Your task to perform on an android device: turn off picture-in-picture Image 0: 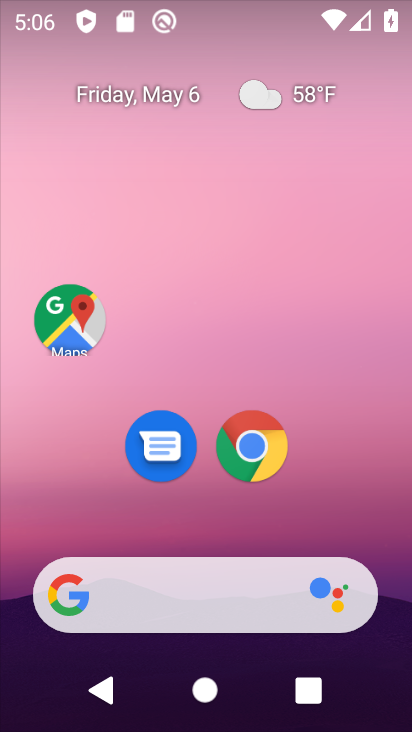
Step 0: click (292, 0)
Your task to perform on an android device: turn off picture-in-picture Image 1: 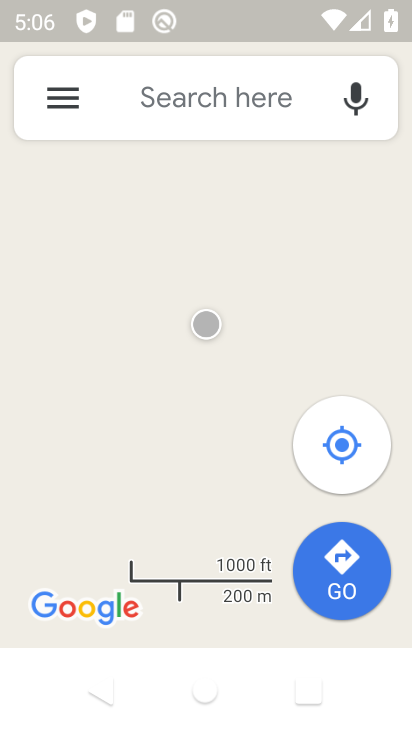
Step 1: press home button
Your task to perform on an android device: turn off picture-in-picture Image 2: 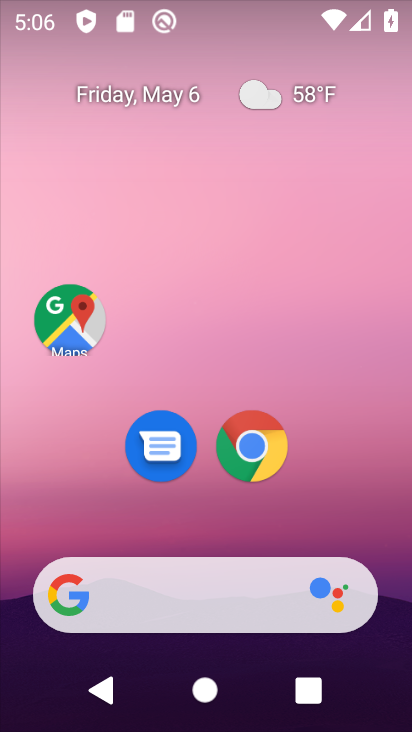
Step 2: drag from (332, 502) to (257, 7)
Your task to perform on an android device: turn off picture-in-picture Image 3: 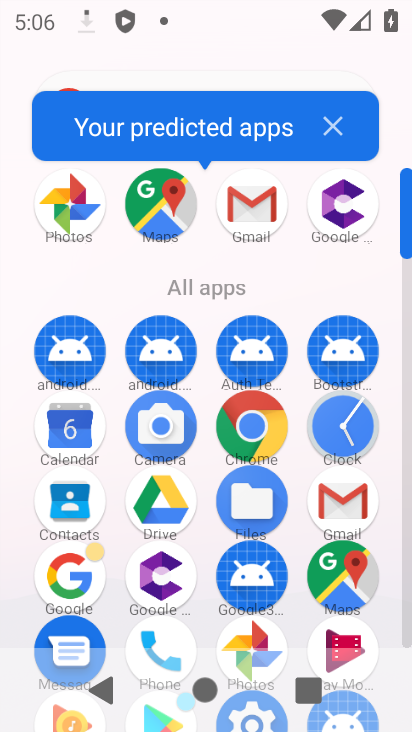
Step 3: drag from (198, 562) to (189, 275)
Your task to perform on an android device: turn off picture-in-picture Image 4: 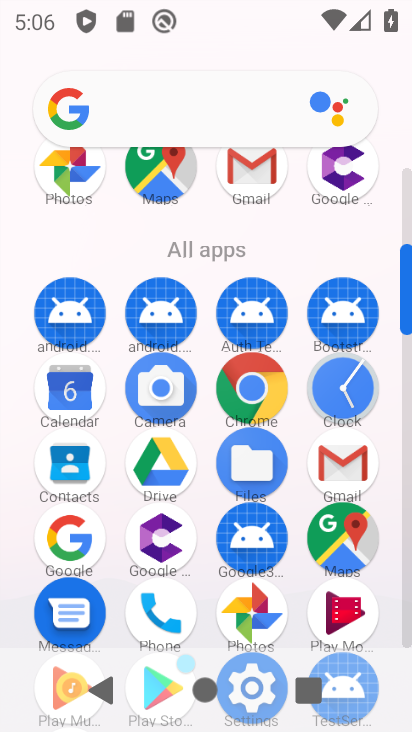
Step 4: drag from (208, 546) to (211, 219)
Your task to perform on an android device: turn off picture-in-picture Image 5: 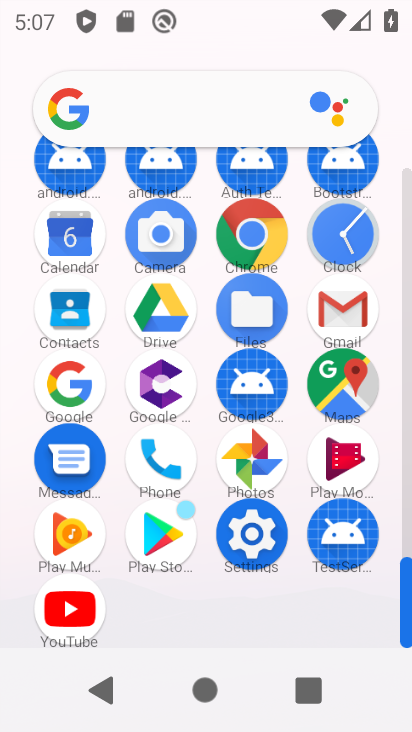
Step 5: click (262, 527)
Your task to perform on an android device: turn off picture-in-picture Image 6: 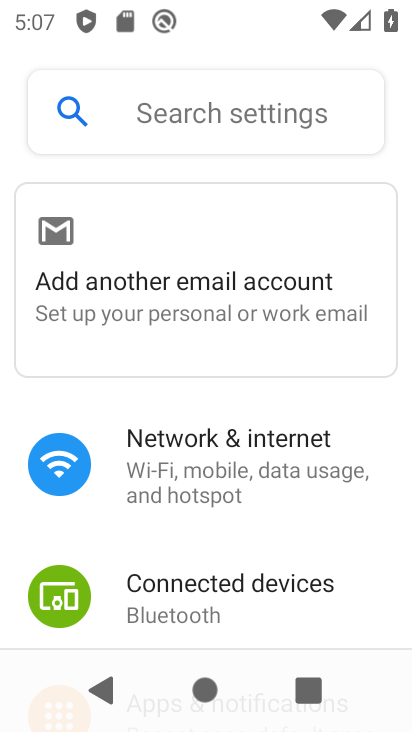
Step 6: drag from (239, 533) to (118, 44)
Your task to perform on an android device: turn off picture-in-picture Image 7: 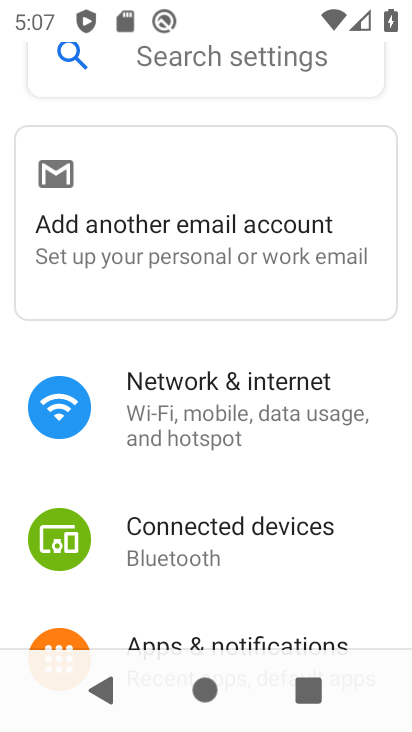
Step 7: click (276, 564)
Your task to perform on an android device: turn off picture-in-picture Image 8: 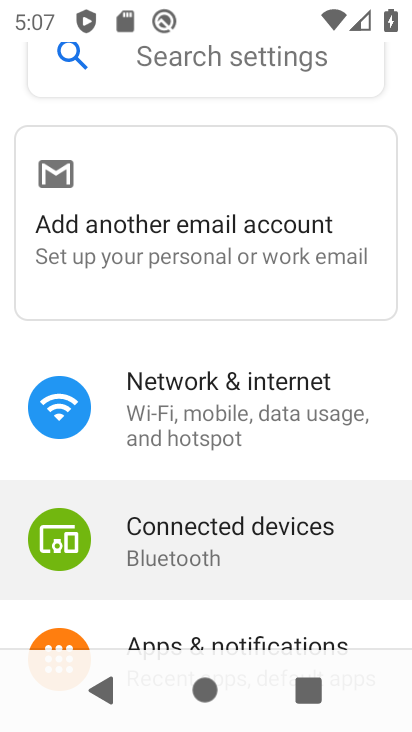
Step 8: drag from (276, 564) to (205, 228)
Your task to perform on an android device: turn off picture-in-picture Image 9: 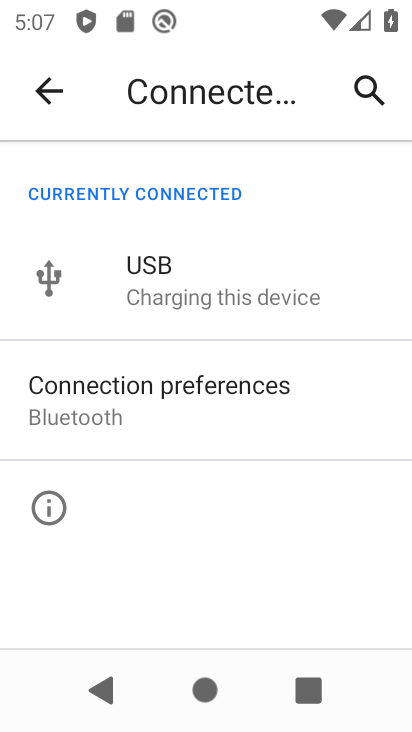
Step 9: click (44, 94)
Your task to perform on an android device: turn off picture-in-picture Image 10: 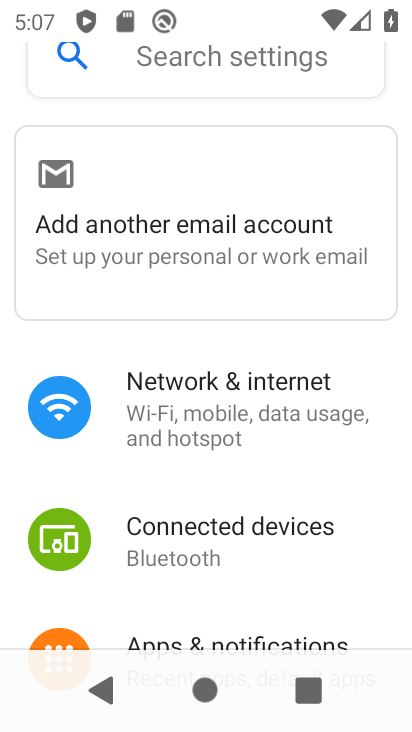
Step 10: drag from (259, 559) to (256, 271)
Your task to perform on an android device: turn off picture-in-picture Image 11: 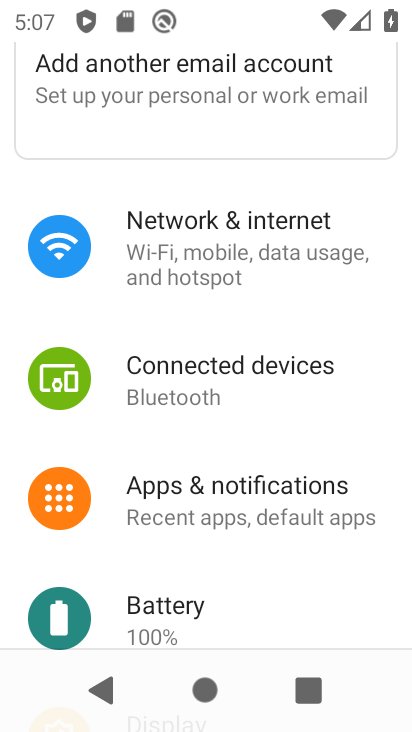
Step 11: click (231, 493)
Your task to perform on an android device: turn off picture-in-picture Image 12: 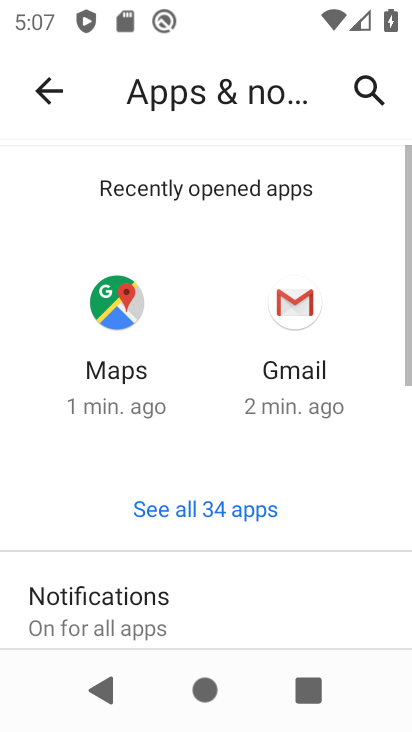
Step 12: drag from (264, 580) to (247, 174)
Your task to perform on an android device: turn off picture-in-picture Image 13: 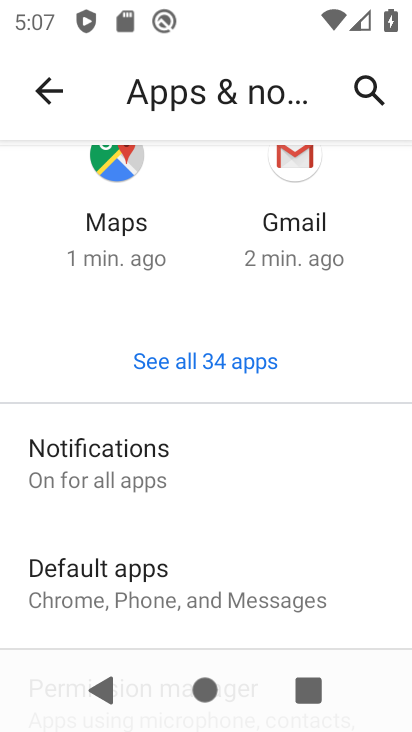
Step 13: drag from (243, 513) to (206, 200)
Your task to perform on an android device: turn off picture-in-picture Image 14: 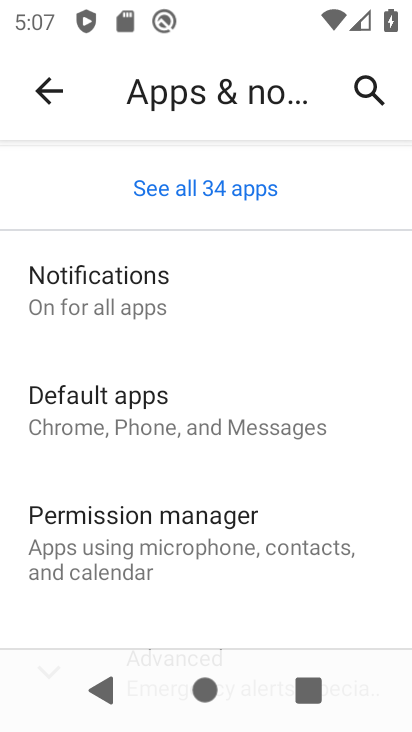
Step 14: drag from (244, 494) to (181, 39)
Your task to perform on an android device: turn off picture-in-picture Image 15: 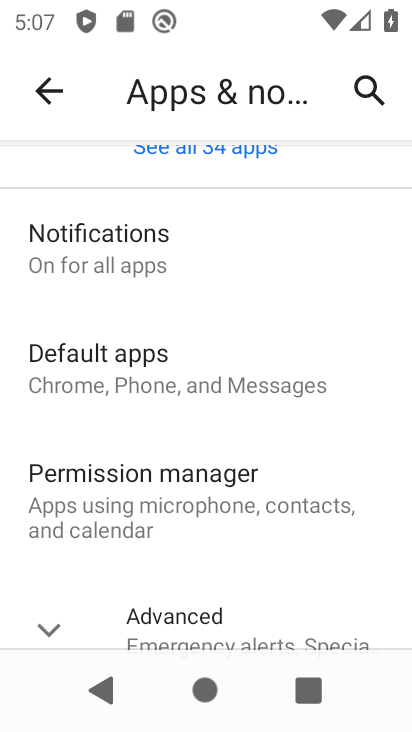
Step 15: click (61, 629)
Your task to perform on an android device: turn off picture-in-picture Image 16: 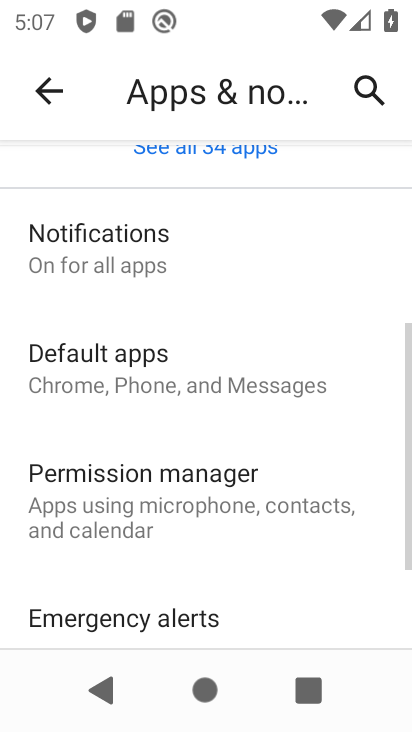
Step 16: drag from (194, 566) to (167, 220)
Your task to perform on an android device: turn off picture-in-picture Image 17: 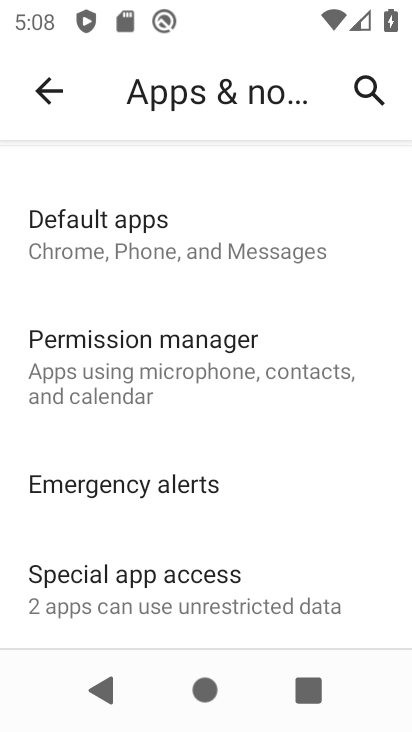
Step 17: drag from (238, 527) to (177, 254)
Your task to perform on an android device: turn off picture-in-picture Image 18: 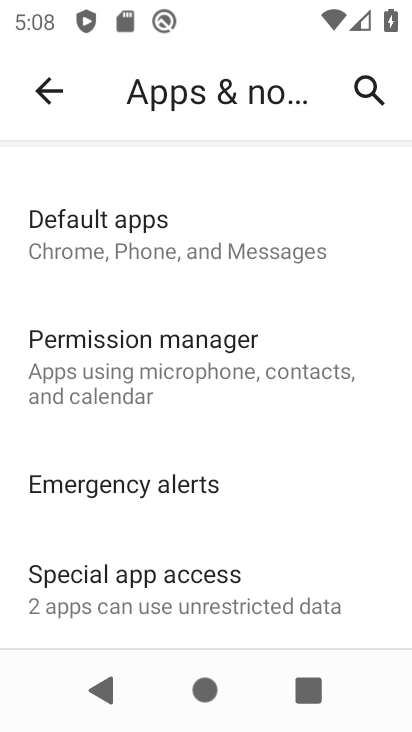
Step 18: drag from (175, 509) to (112, 207)
Your task to perform on an android device: turn off picture-in-picture Image 19: 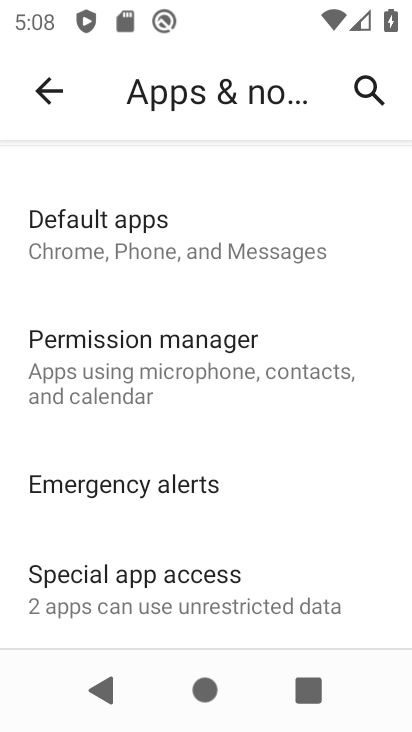
Step 19: click (150, 585)
Your task to perform on an android device: turn off picture-in-picture Image 20: 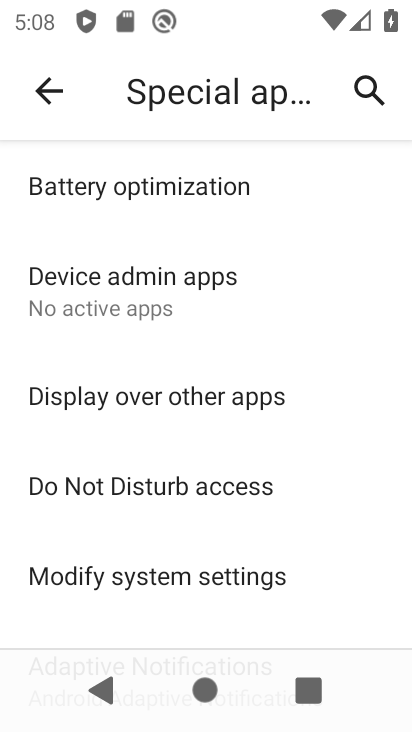
Step 20: drag from (244, 449) to (196, 165)
Your task to perform on an android device: turn off picture-in-picture Image 21: 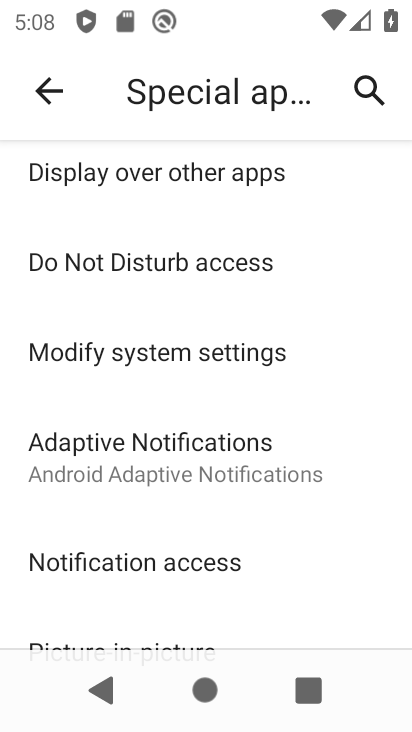
Step 21: drag from (246, 496) to (210, 292)
Your task to perform on an android device: turn off picture-in-picture Image 22: 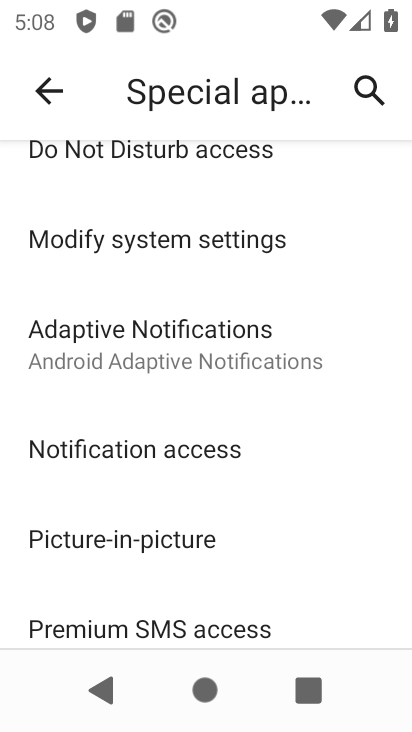
Step 22: click (176, 535)
Your task to perform on an android device: turn off picture-in-picture Image 23: 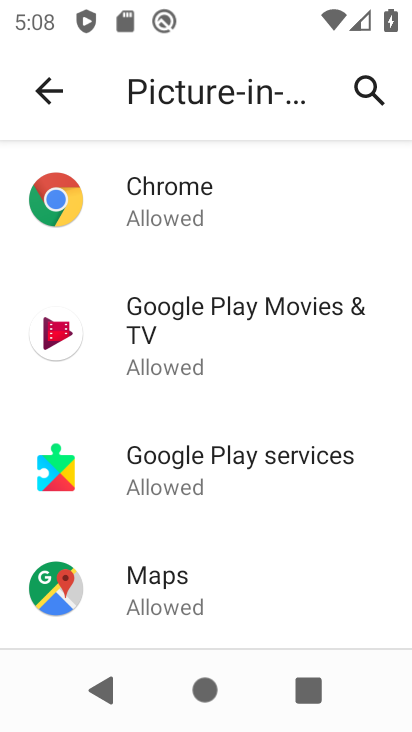
Step 23: click (179, 206)
Your task to perform on an android device: turn off picture-in-picture Image 24: 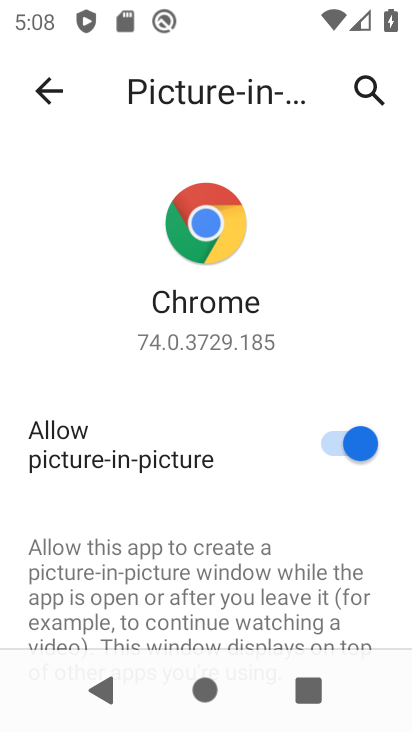
Step 24: click (356, 451)
Your task to perform on an android device: turn off picture-in-picture Image 25: 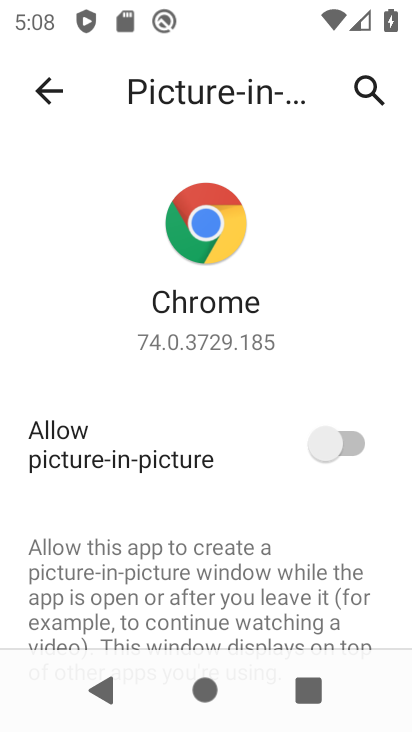
Step 25: click (44, 81)
Your task to perform on an android device: turn off picture-in-picture Image 26: 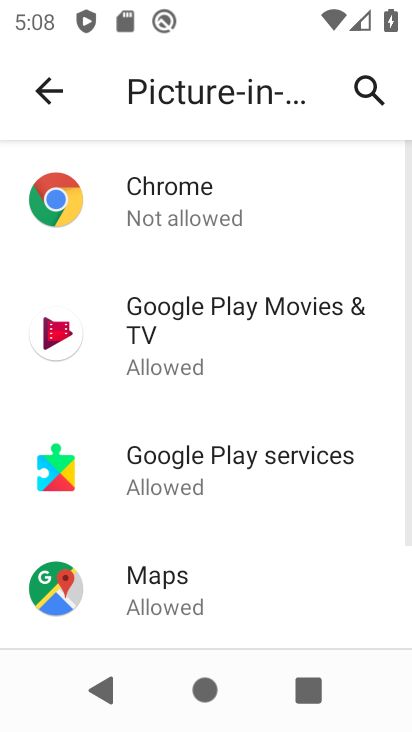
Step 26: click (161, 350)
Your task to perform on an android device: turn off picture-in-picture Image 27: 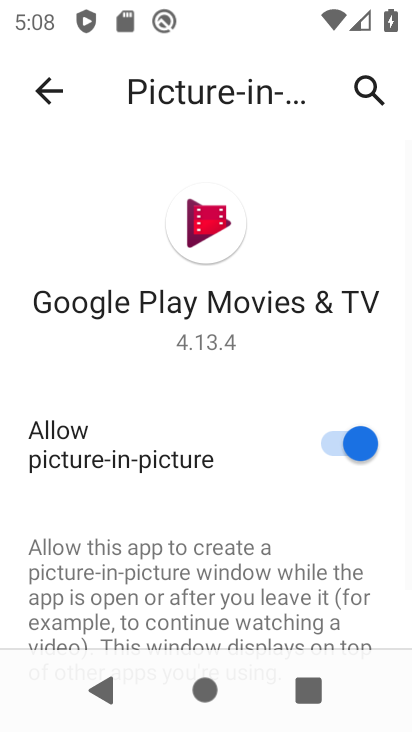
Step 27: click (356, 439)
Your task to perform on an android device: turn off picture-in-picture Image 28: 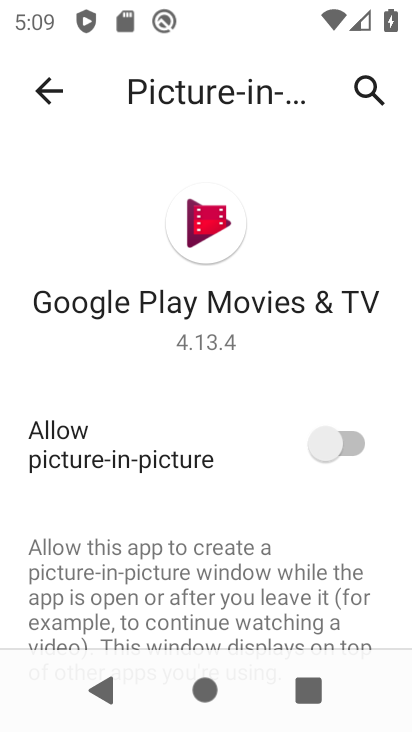
Step 28: click (47, 93)
Your task to perform on an android device: turn off picture-in-picture Image 29: 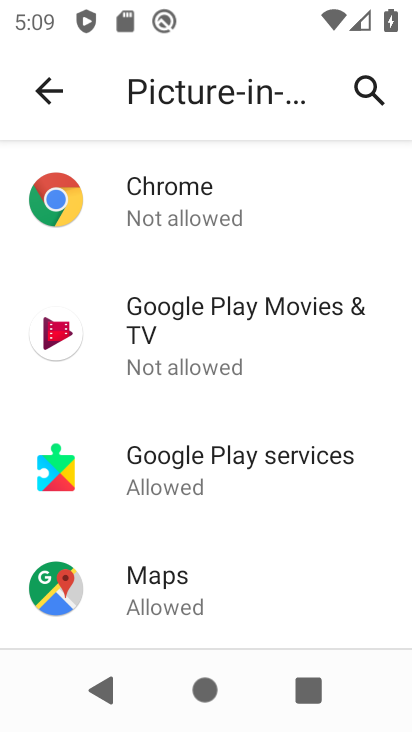
Step 29: click (177, 461)
Your task to perform on an android device: turn off picture-in-picture Image 30: 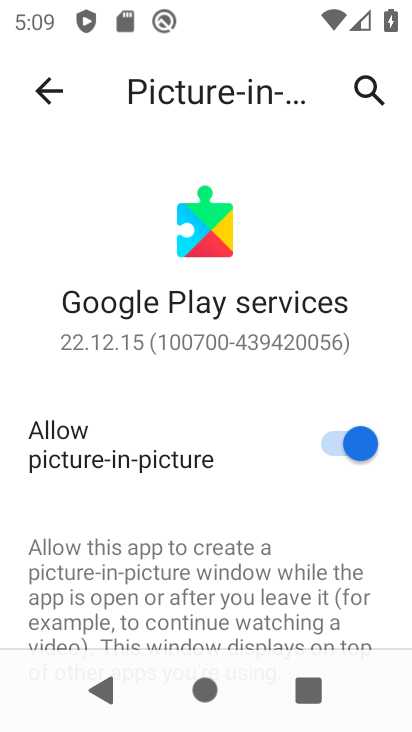
Step 30: click (346, 445)
Your task to perform on an android device: turn off picture-in-picture Image 31: 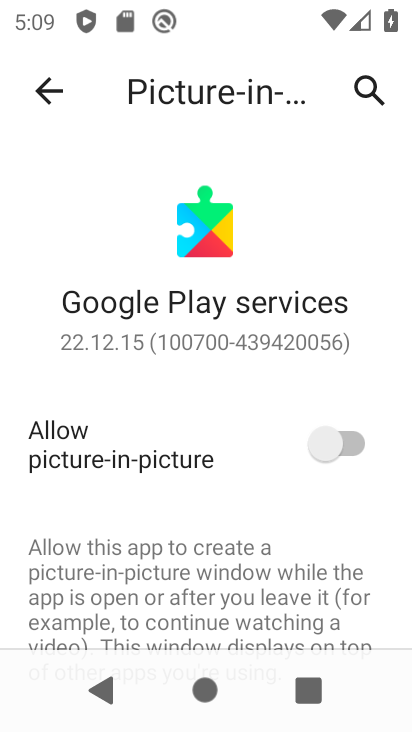
Step 31: click (52, 93)
Your task to perform on an android device: turn off picture-in-picture Image 32: 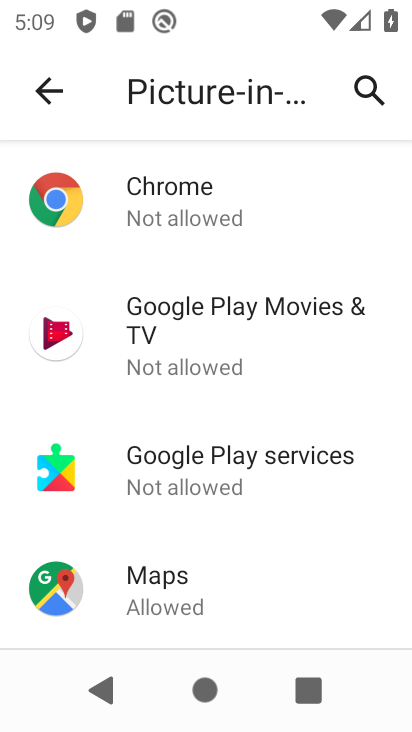
Step 32: click (165, 582)
Your task to perform on an android device: turn off picture-in-picture Image 33: 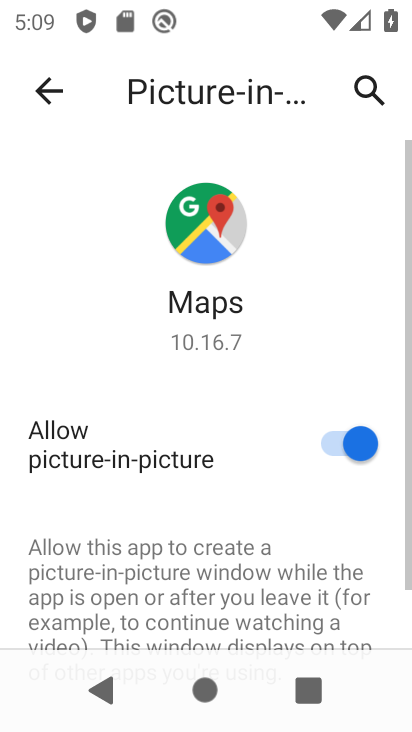
Step 33: click (355, 444)
Your task to perform on an android device: turn off picture-in-picture Image 34: 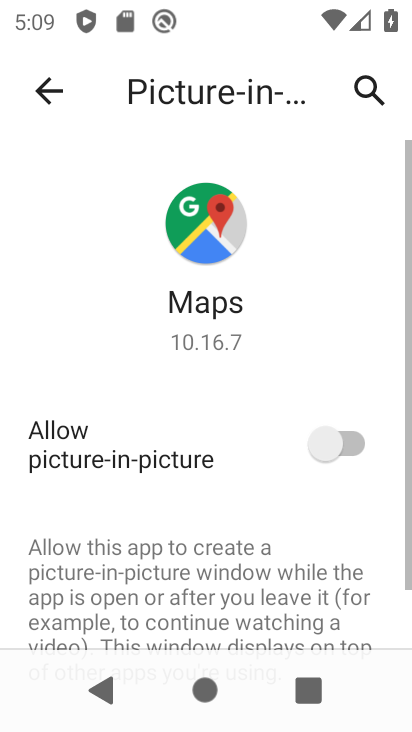
Step 34: click (42, 84)
Your task to perform on an android device: turn off picture-in-picture Image 35: 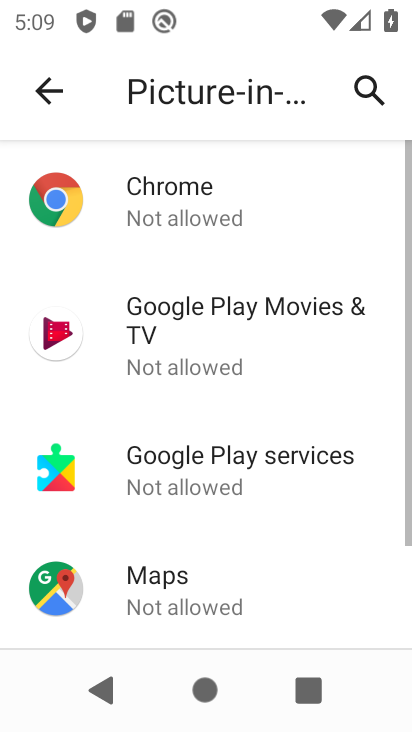
Step 35: drag from (137, 472) to (317, 476)
Your task to perform on an android device: turn off picture-in-picture Image 36: 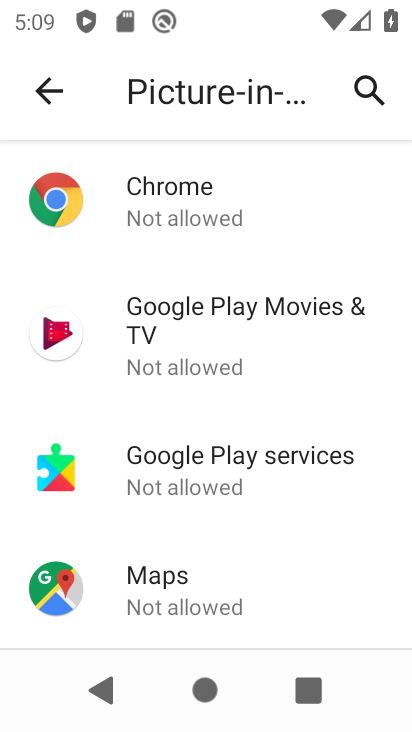
Step 36: drag from (295, 503) to (261, 187)
Your task to perform on an android device: turn off picture-in-picture Image 37: 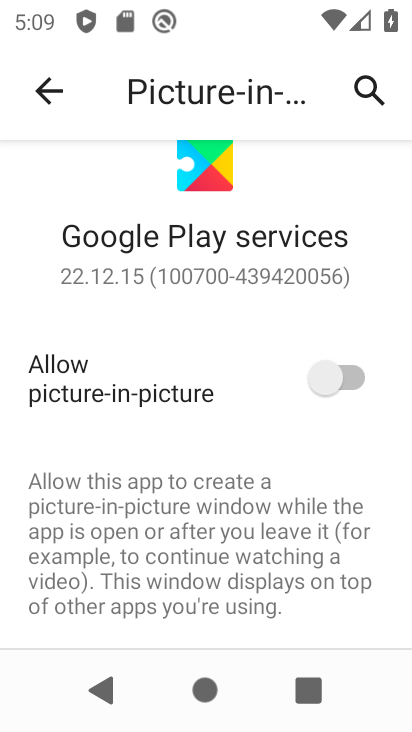
Step 37: click (45, 88)
Your task to perform on an android device: turn off picture-in-picture Image 38: 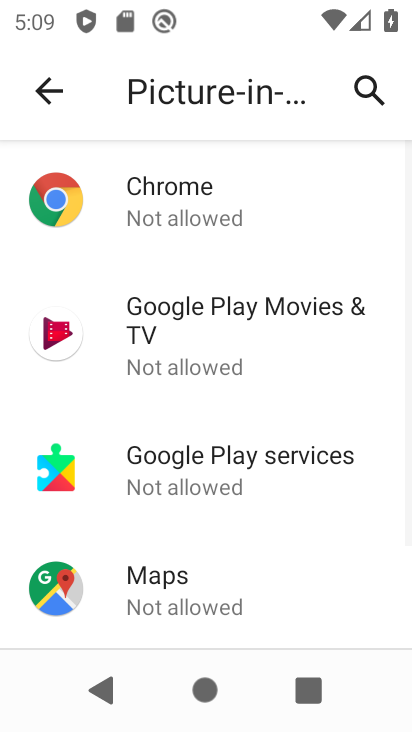
Step 38: drag from (323, 531) to (298, 147)
Your task to perform on an android device: turn off picture-in-picture Image 39: 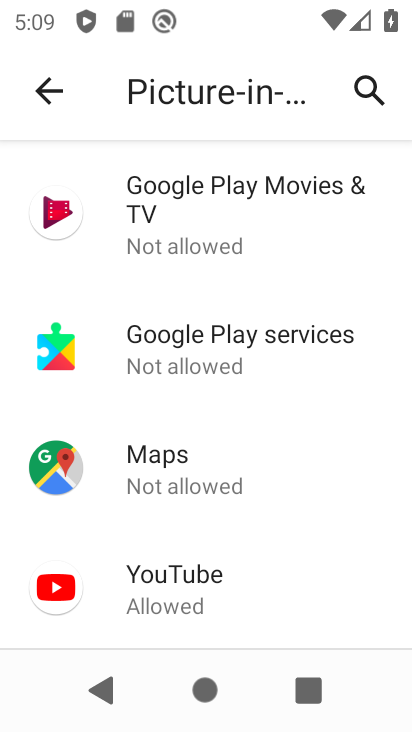
Step 39: click (175, 587)
Your task to perform on an android device: turn off picture-in-picture Image 40: 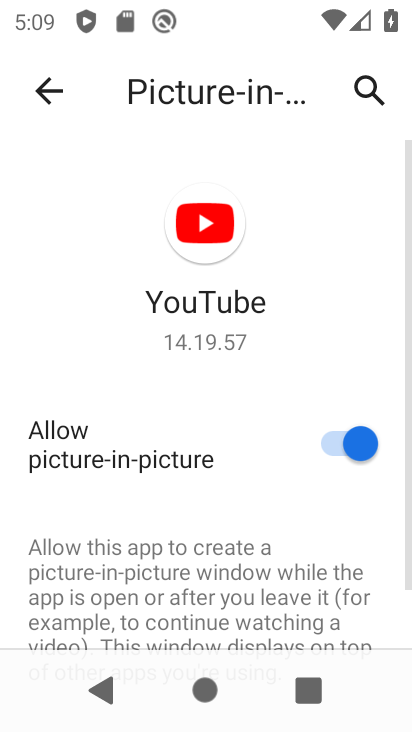
Step 40: click (359, 446)
Your task to perform on an android device: turn off picture-in-picture Image 41: 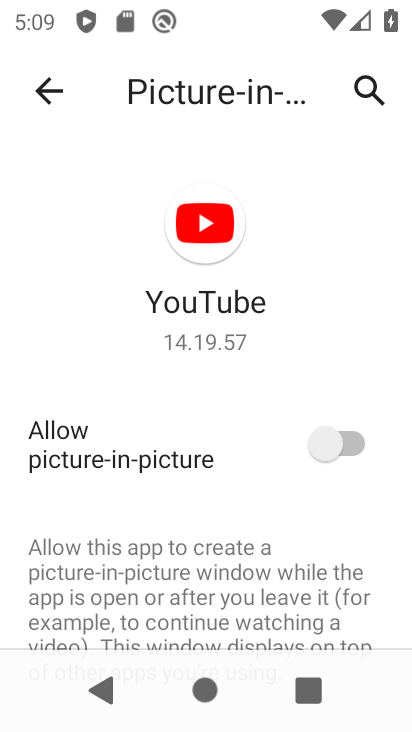
Step 41: task complete